Your task to perform on an android device: turn smart compose on in the gmail app Image 0: 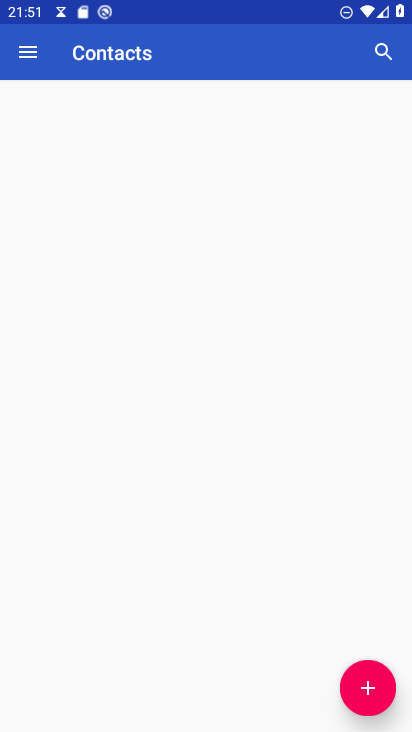
Step 0: drag from (221, 623) to (281, 68)
Your task to perform on an android device: turn smart compose on in the gmail app Image 1: 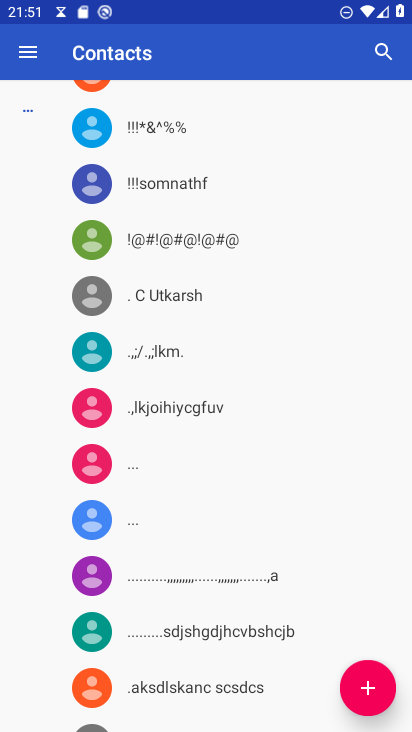
Step 1: drag from (212, 602) to (217, 232)
Your task to perform on an android device: turn smart compose on in the gmail app Image 2: 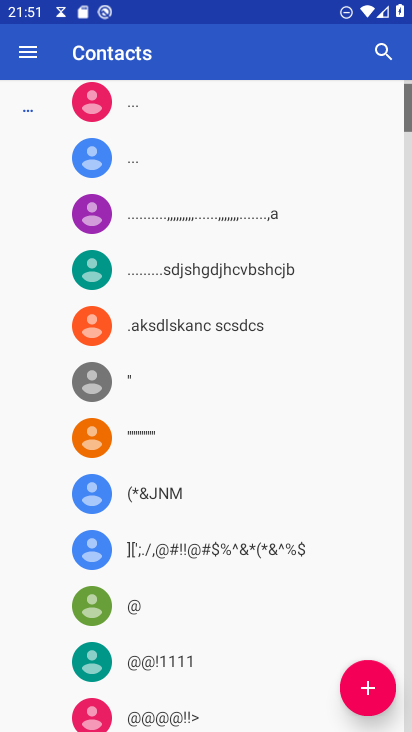
Step 2: drag from (212, 609) to (287, 260)
Your task to perform on an android device: turn smart compose on in the gmail app Image 3: 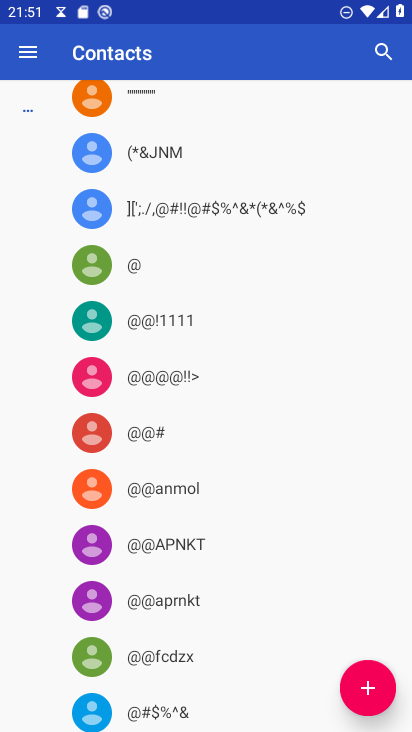
Step 3: drag from (191, 234) to (290, 563)
Your task to perform on an android device: turn smart compose on in the gmail app Image 4: 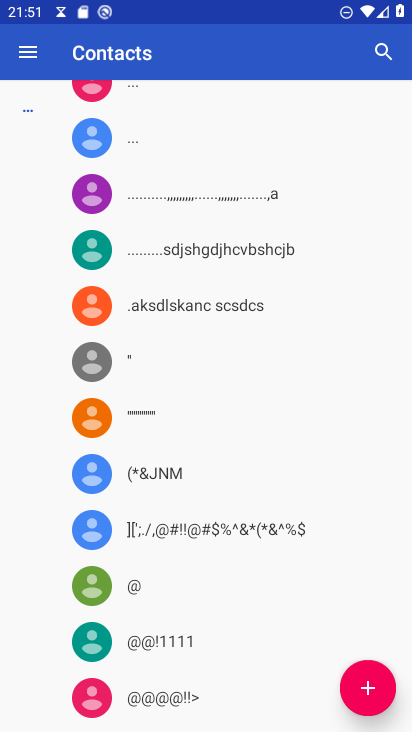
Step 4: drag from (186, 644) to (258, 249)
Your task to perform on an android device: turn smart compose on in the gmail app Image 5: 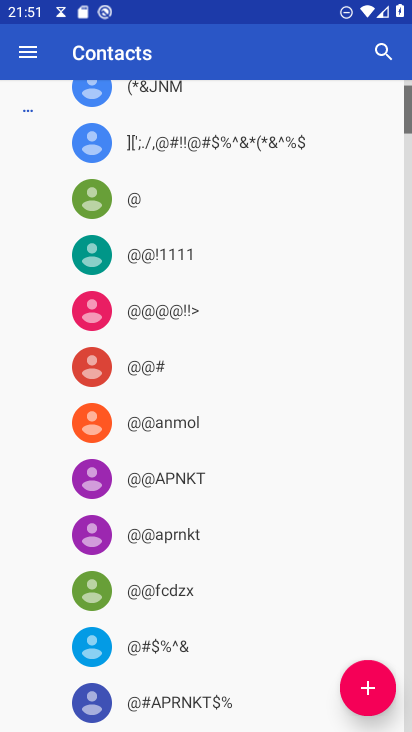
Step 5: drag from (139, 508) to (261, 214)
Your task to perform on an android device: turn smart compose on in the gmail app Image 6: 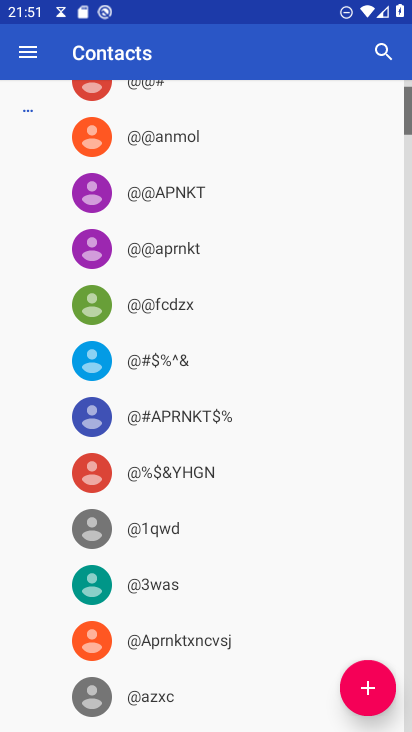
Step 6: drag from (187, 603) to (279, 242)
Your task to perform on an android device: turn smart compose on in the gmail app Image 7: 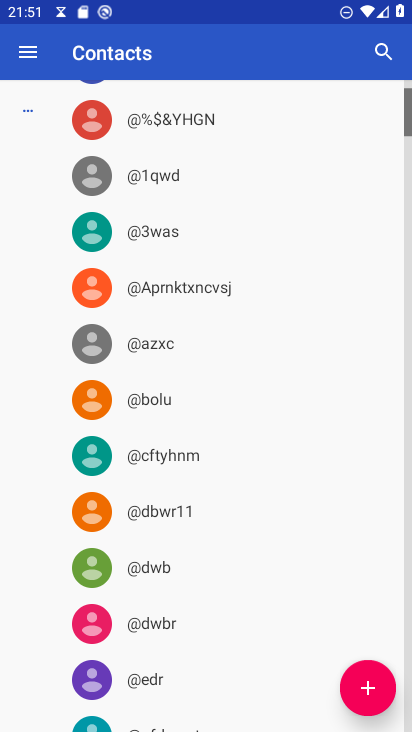
Step 7: drag from (206, 518) to (260, 213)
Your task to perform on an android device: turn smart compose on in the gmail app Image 8: 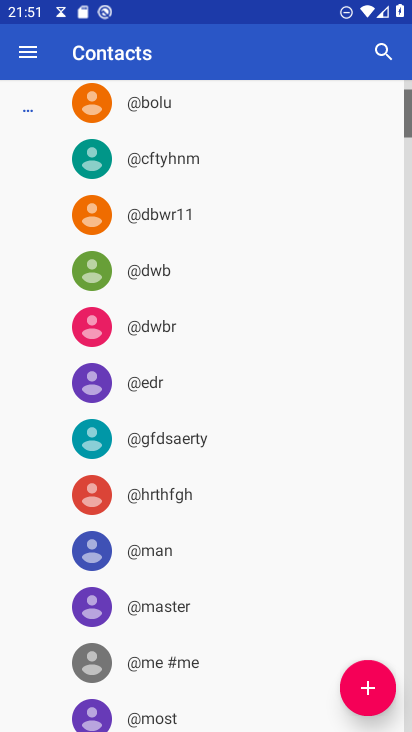
Step 8: drag from (235, 584) to (261, 273)
Your task to perform on an android device: turn smart compose on in the gmail app Image 9: 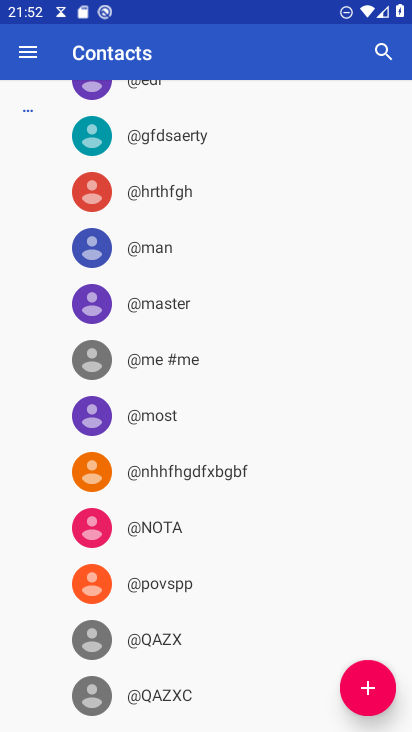
Step 9: press home button
Your task to perform on an android device: turn smart compose on in the gmail app Image 10: 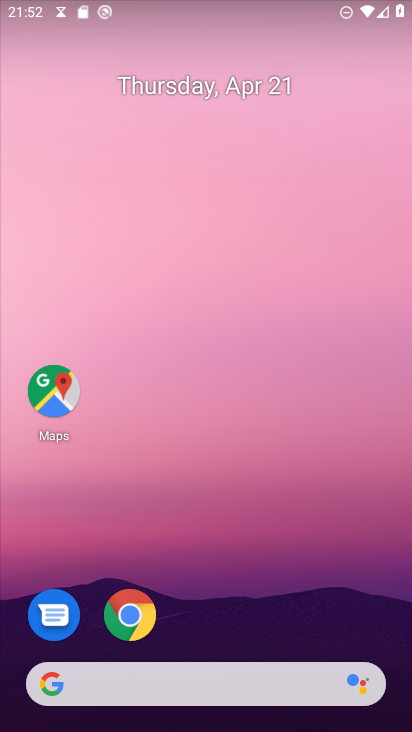
Step 10: drag from (199, 620) to (235, 134)
Your task to perform on an android device: turn smart compose on in the gmail app Image 11: 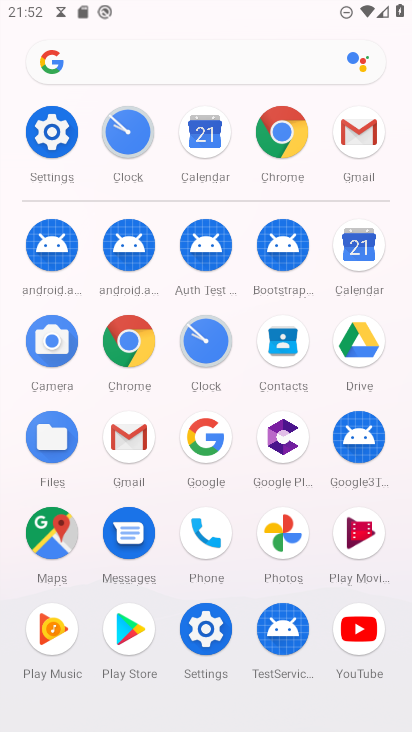
Step 11: click (122, 432)
Your task to perform on an android device: turn smart compose on in the gmail app Image 12: 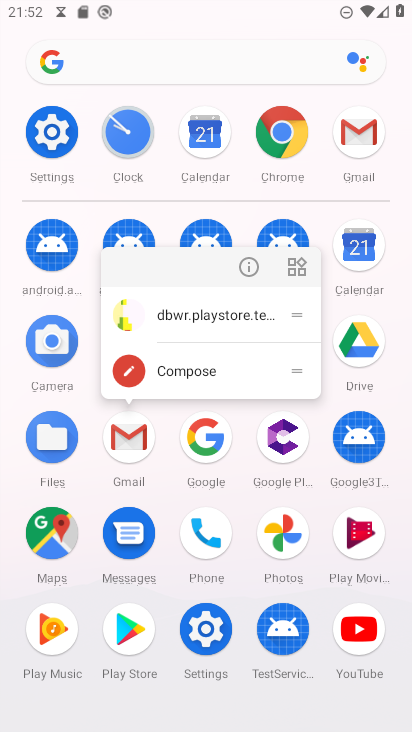
Step 12: click (239, 260)
Your task to perform on an android device: turn smart compose on in the gmail app Image 13: 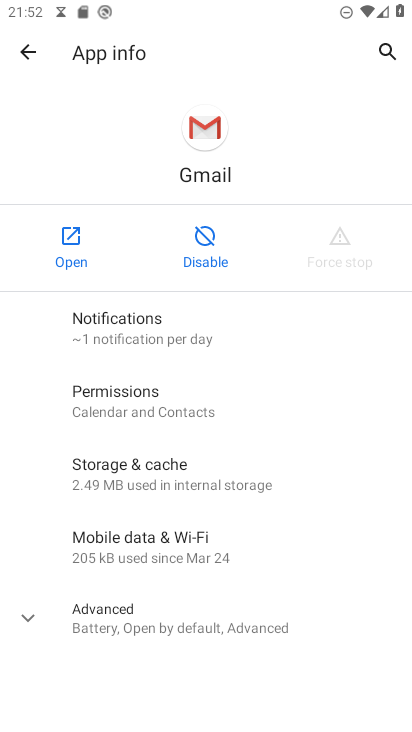
Step 13: click (77, 249)
Your task to perform on an android device: turn smart compose on in the gmail app Image 14: 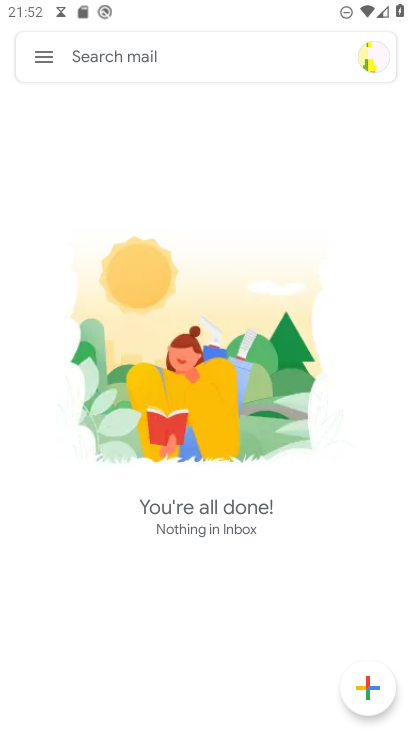
Step 14: click (51, 53)
Your task to perform on an android device: turn smart compose on in the gmail app Image 15: 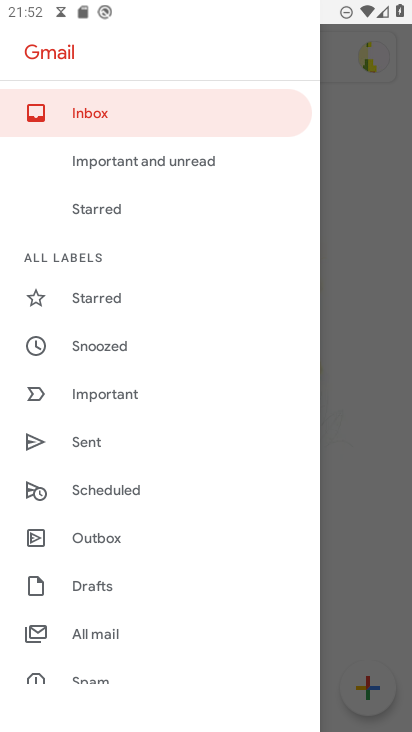
Step 15: drag from (135, 583) to (408, 135)
Your task to perform on an android device: turn smart compose on in the gmail app Image 16: 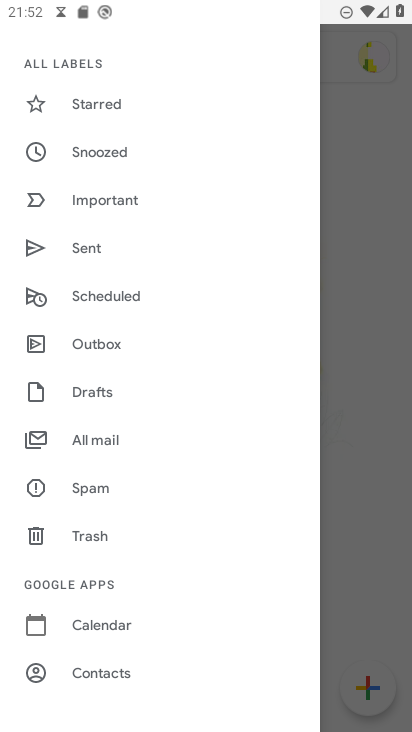
Step 16: drag from (129, 667) to (135, 119)
Your task to perform on an android device: turn smart compose on in the gmail app Image 17: 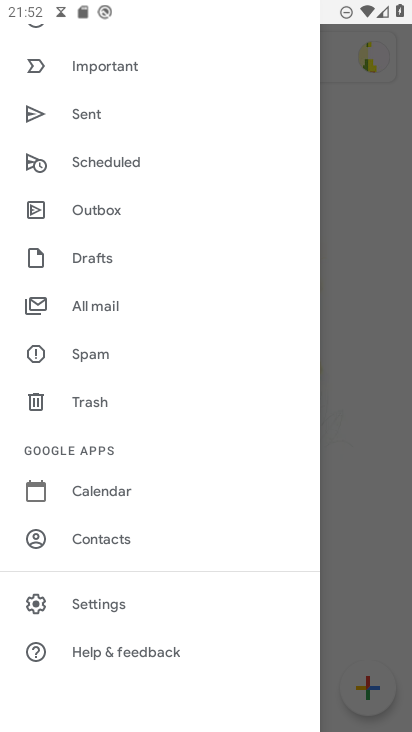
Step 17: click (108, 609)
Your task to perform on an android device: turn smart compose on in the gmail app Image 18: 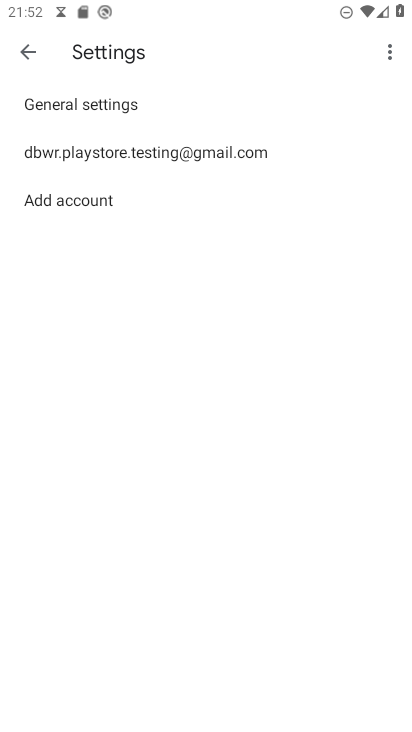
Step 18: click (177, 145)
Your task to perform on an android device: turn smart compose on in the gmail app Image 19: 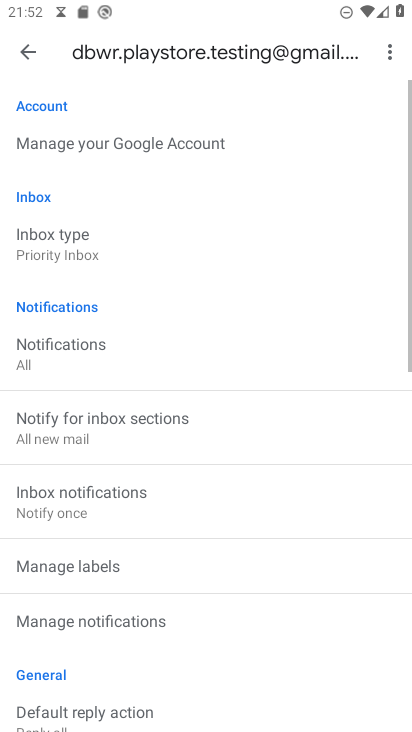
Step 19: task complete